Your task to perform on an android device: Open Google Maps Image 0: 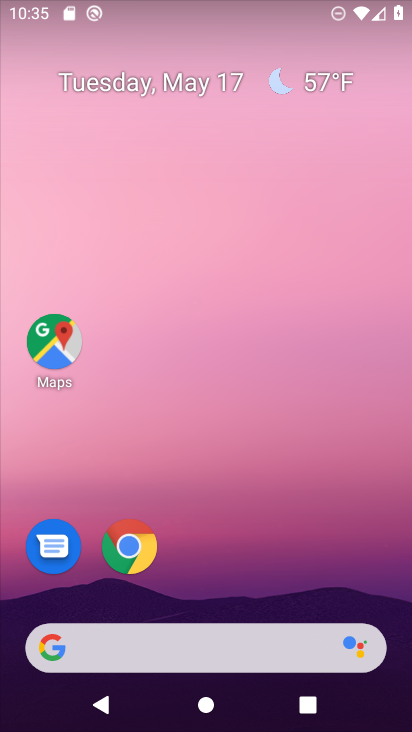
Step 0: click (214, 343)
Your task to perform on an android device: Open Google Maps Image 1: 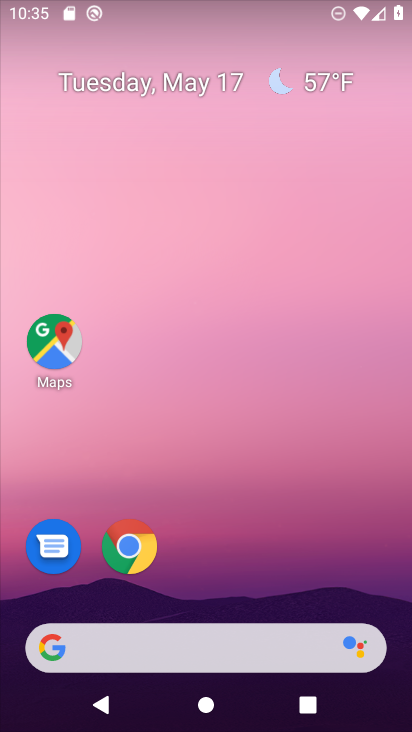
Step 1: click (53, 341)
Your task to perform on an android device: Open Google Maps Image 2: 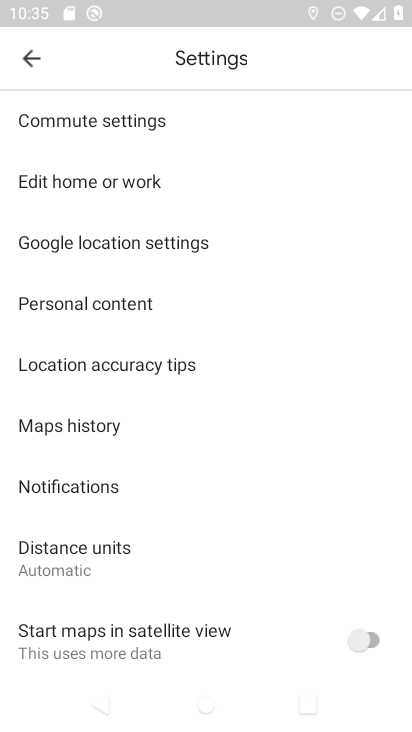
Step 2: click (21, 55)
Your task to perform on an android device: Open Google Maps Image 3: 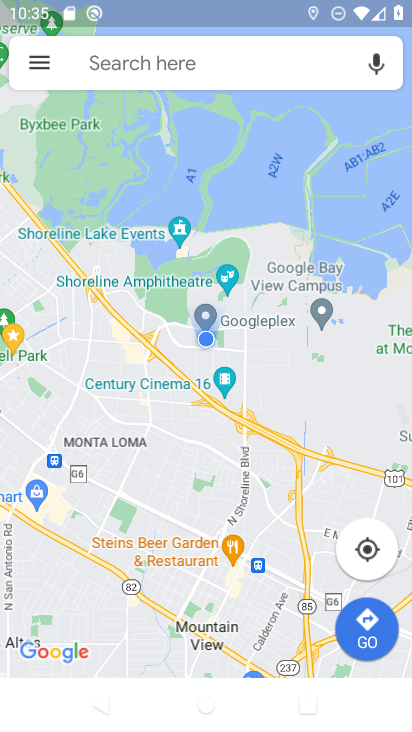
Step 3: task complete